Your task to perform on an android device: check google app version Image 0: 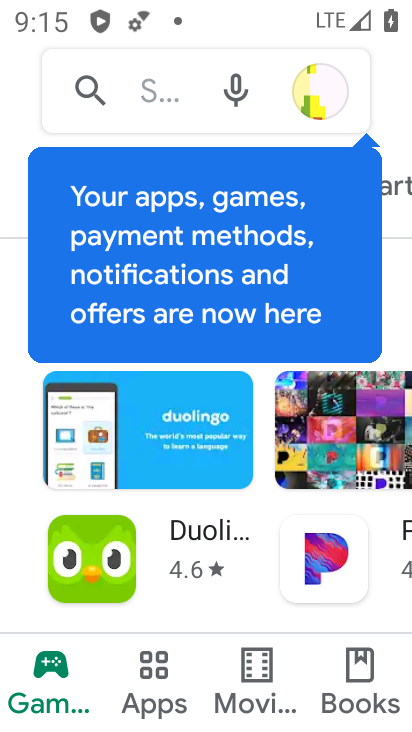
Step 0: press home button
Your task to perform on an android device: check google app version Image 1: 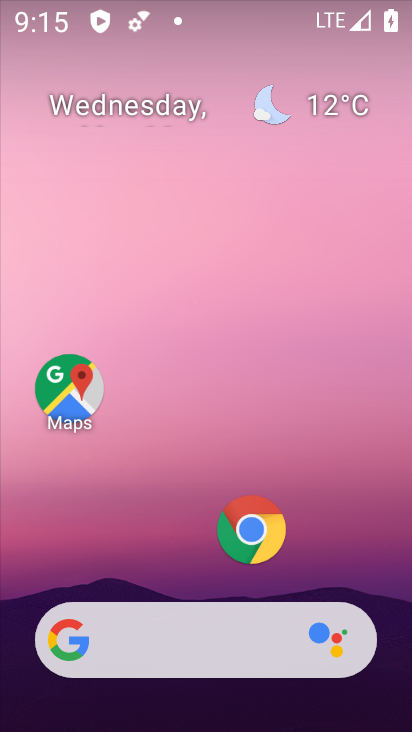
Step 1: drag from (123, 602) to (101, 267)
Your task to perform on an android device: check google app version Image 2: 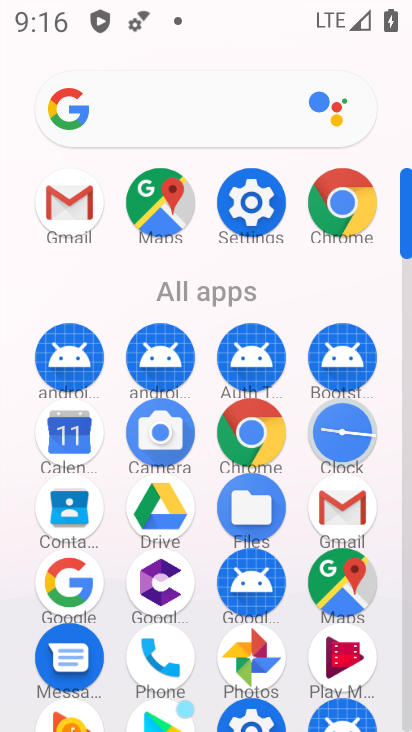
Step 2: click (67, 575)
Your task to perform on an android device: check google app version Image 3: 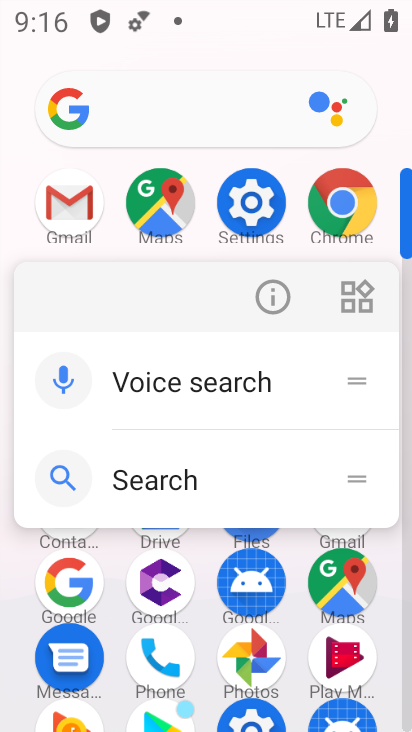
Step 3: click (284, 288)
Your task to perform on an android device: check google app version Image 4: 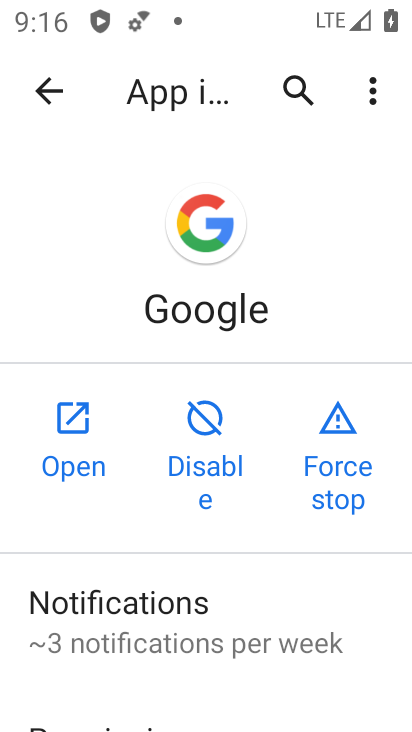
Step 4: drag from (209, 677) to (228, 316)
Your task to perform on an android device: check google app version Image 5: 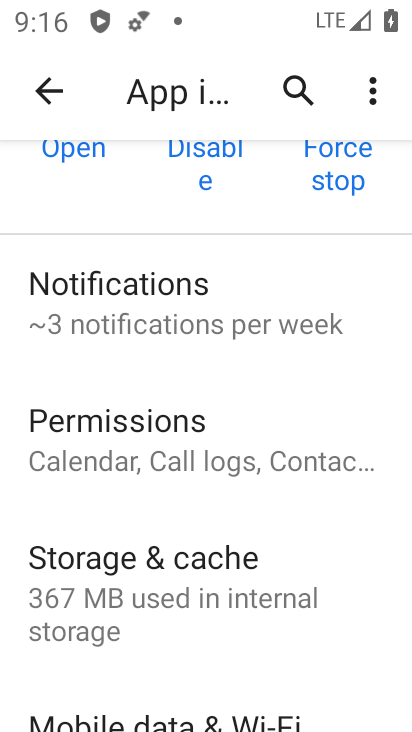
Step 5: drag from (238, 690) to (240, 321)
Your task to perform on an android device: check google app version Image 6: 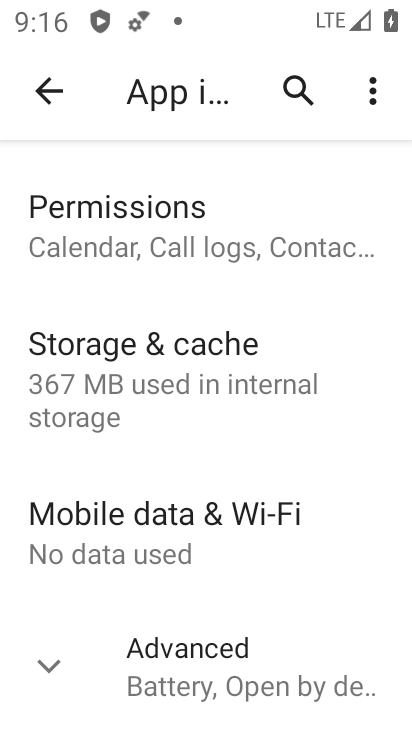
Step 6: click (183, 641)
Your task to perform on an android device: check google app version Image 7: 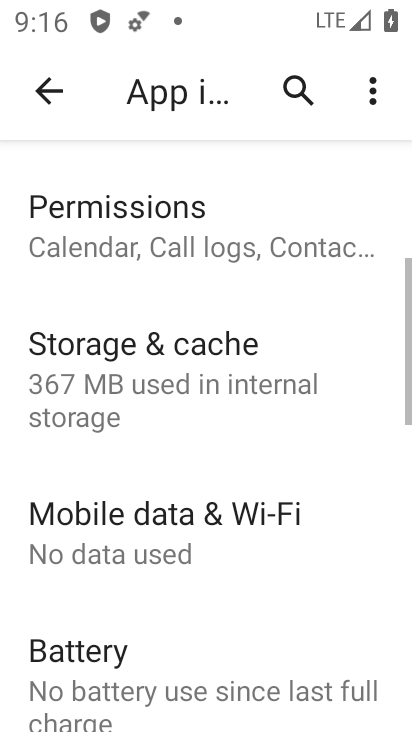
Step 7: task complete